Your task to perform on an android device: Go to CNN.com Image 0: 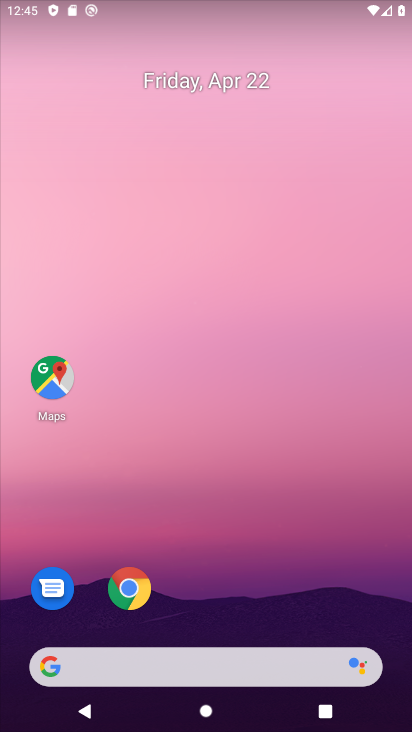
Step 0: drag from (352, 590) to (354, 111)
Your task to perform on an android device: Go to CNN.com Image 1: 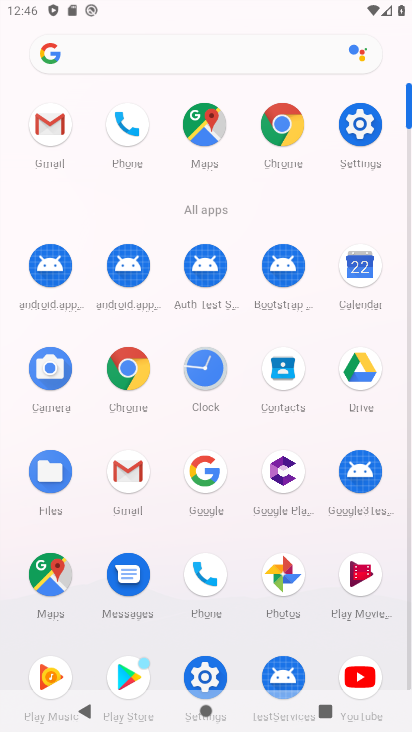
Step 1: click (115, 363)
Your task to perform on an android device: Go to CNN.com Image 2: 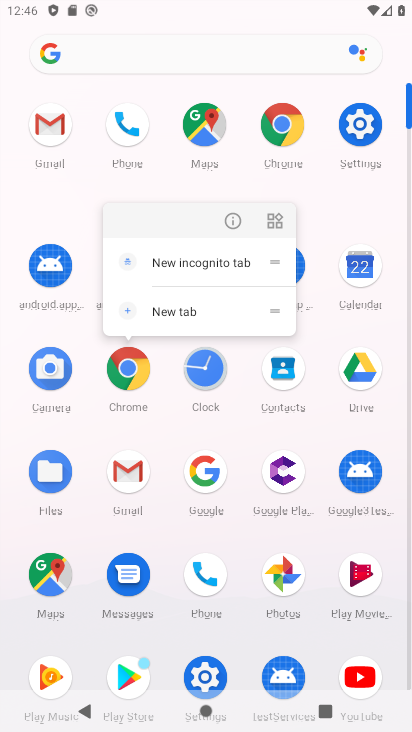
Step 2: click (119, 375)
Your task to perform on an android device: Go to CNN.com Image 3: 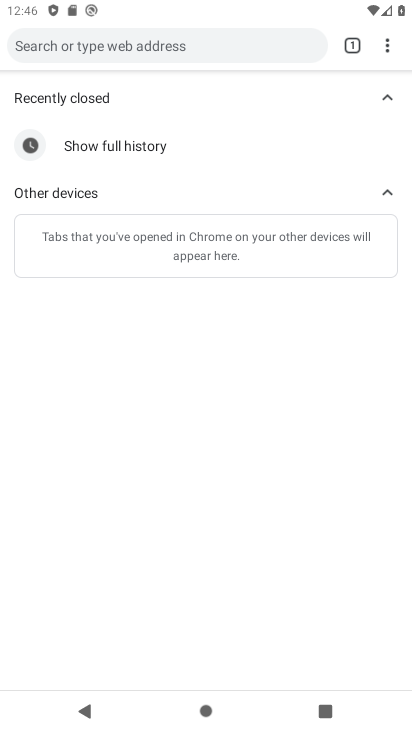
Step 3: click (139, 49)
Your task to perform on an android device: Go to CNN.com Image 4: 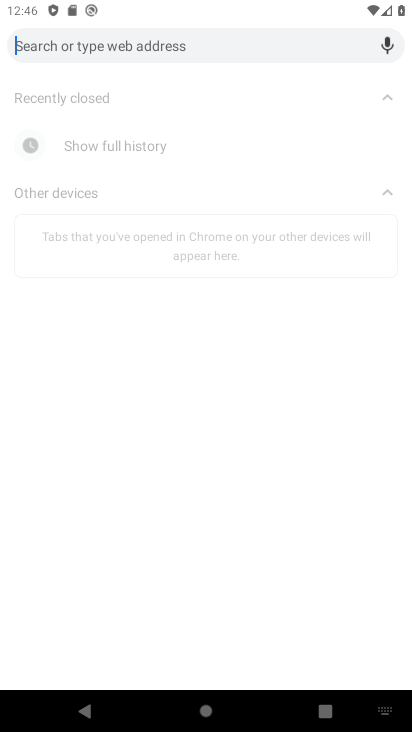
Step 4: type "cnn.com"
Your task to perform on an android device: Go to CNN.com Image 5: 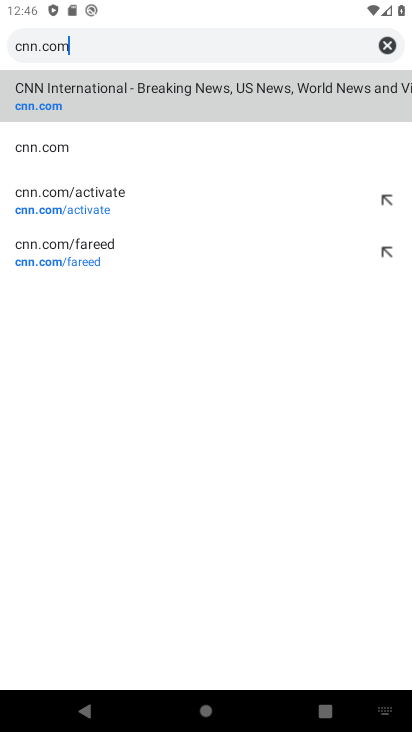
Step 5: click (48, 92)
Your task to perform on an android device: Go to CNN.com Image 6: 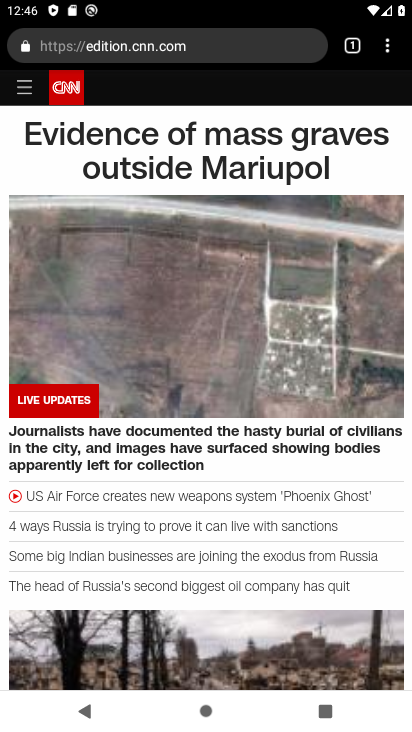
Step 6: task complete